Your task to perform on an android device: toggle javascript in the chrome app Image 0: 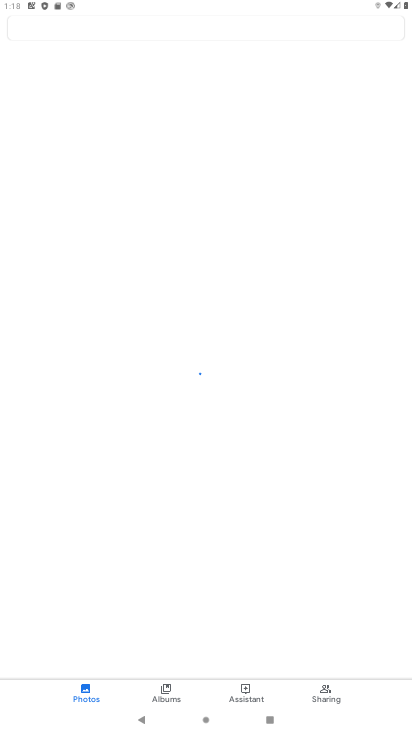
Step 0: press home button
Your task to perform on an android device: toggle javascript in the chrome app Image 1: 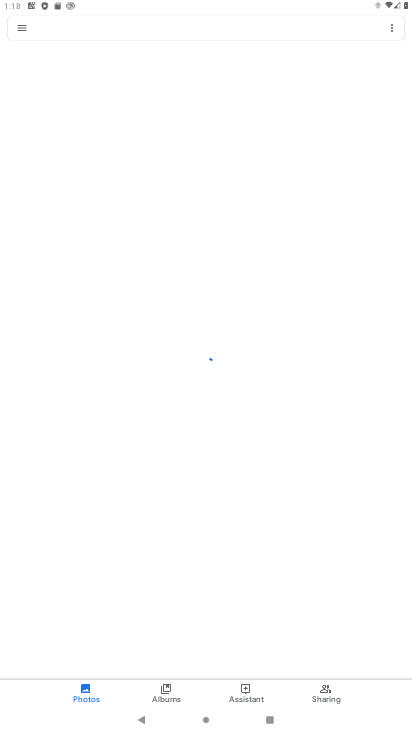
Step 1: drag from (329, 586) to (334, 216)
Your task to perform on an android device: toggle javascript in the chrome app Image 2: 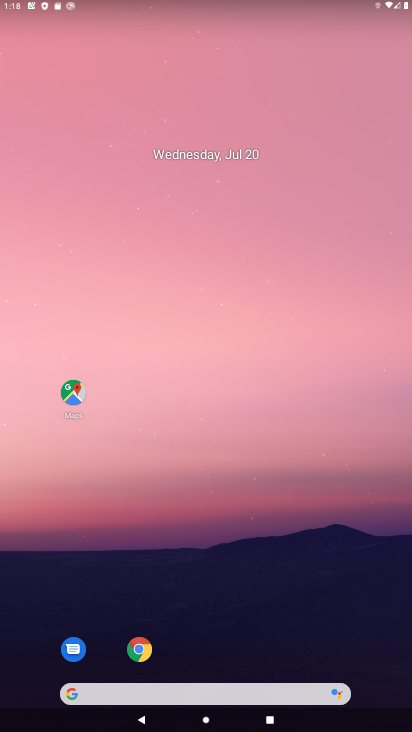
Step 2: drag from (366, 629) to (340, 122)
Your task to perform on an android device: toggle javascript in the chrome app Image 3: 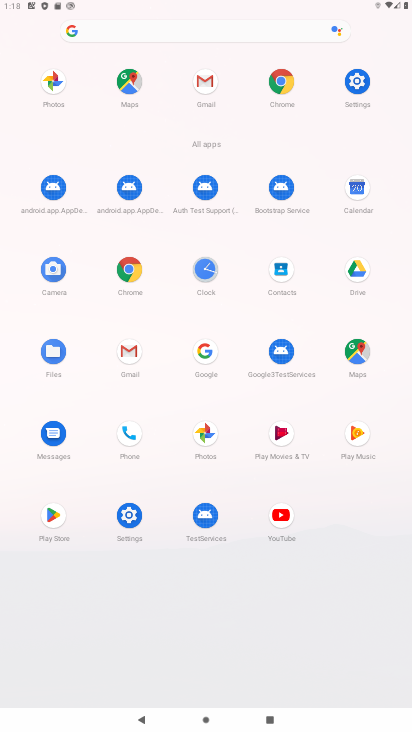
Step 3: click (291, 91)
Your task to perform on an android device: toggle javascript in the chrome app Image 4: 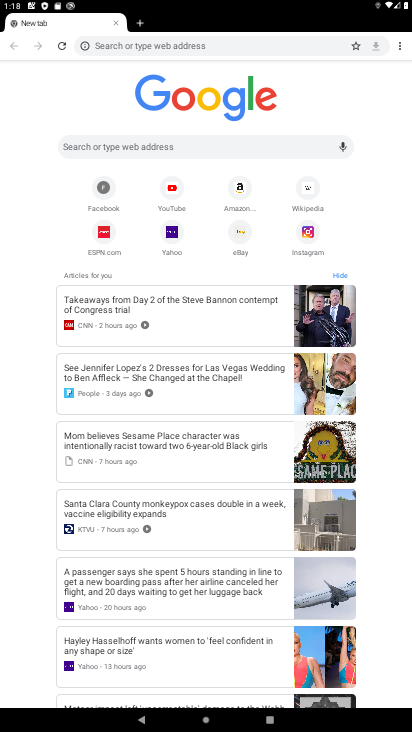
Step 4: drag from (400, 50) to (287, 213)
Your task to perform on an android device: toggle javascript in the chrome app Image 5: 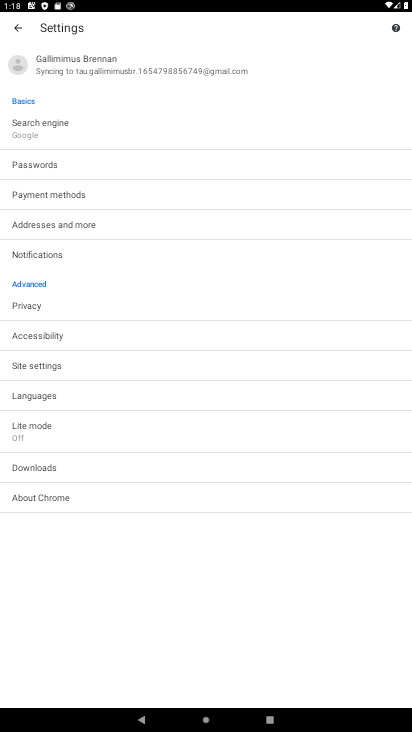
Step 5: click (78, 364)
Your task to perform on an android device: toggle javascript in the chrome app Image 6: 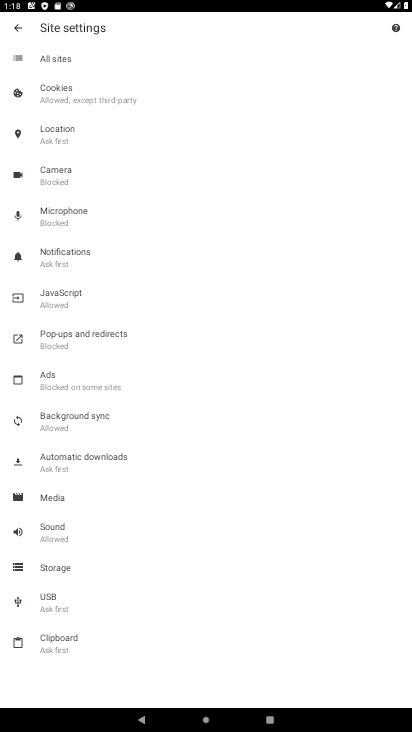
Step 6: click (55, 307)
Your task to perform on an android device: toggle javascript in the chrome app Image 7: 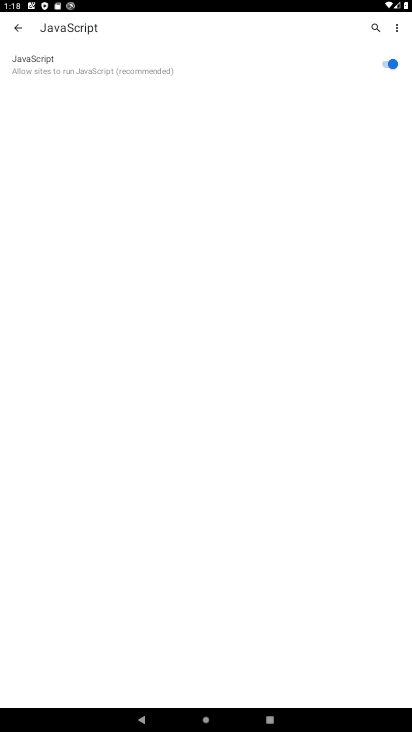
Step 7: click (154, 67)
Your task to perform on an android device: toggle javascript in the chrome app Image 8: 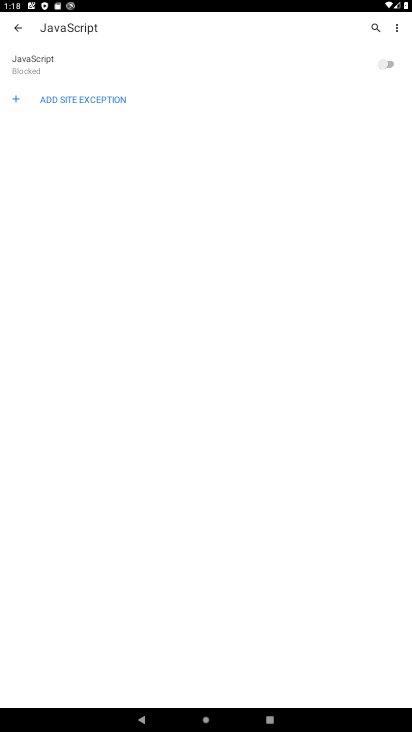
Step 8: task complete